Your task to perform on an android device: open wifi settings Image 0: 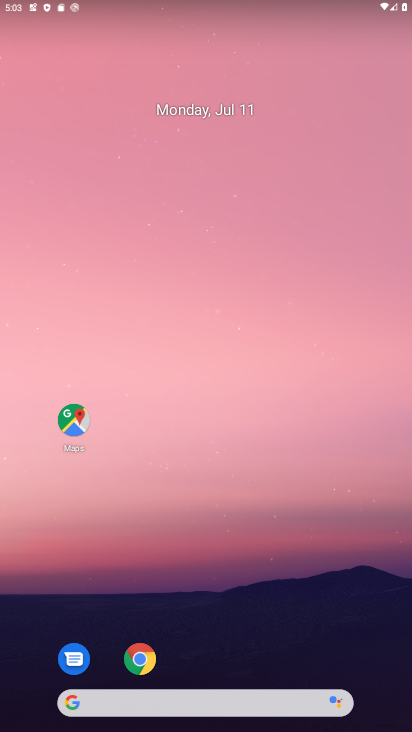
Step 0: drag from (328, 646) to (303, 132)
Your task to perform on an android device: open wifi settings Image 1: 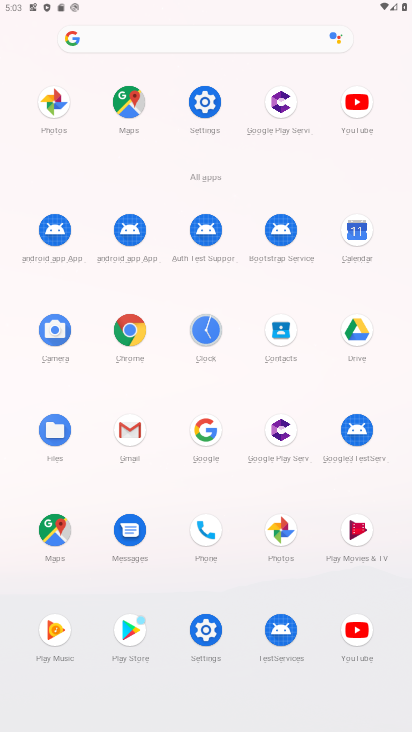
Step 1: click (209, 633)
Your task to perform on an android device: open wifi settings Image 2: 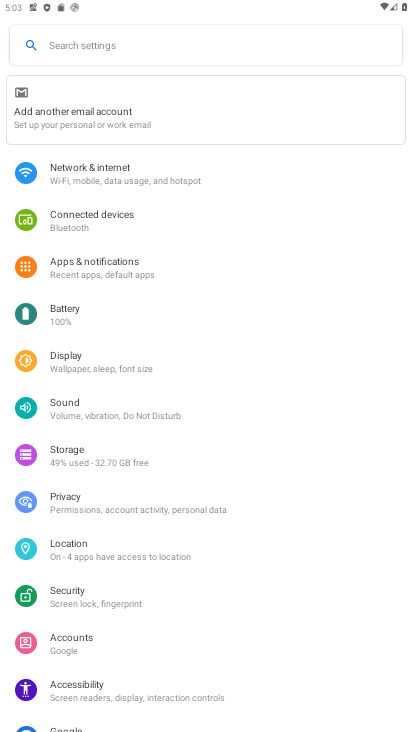
Step 2: click (93, 177)
Your task to perform on an android device: open wifi settings Image 3: 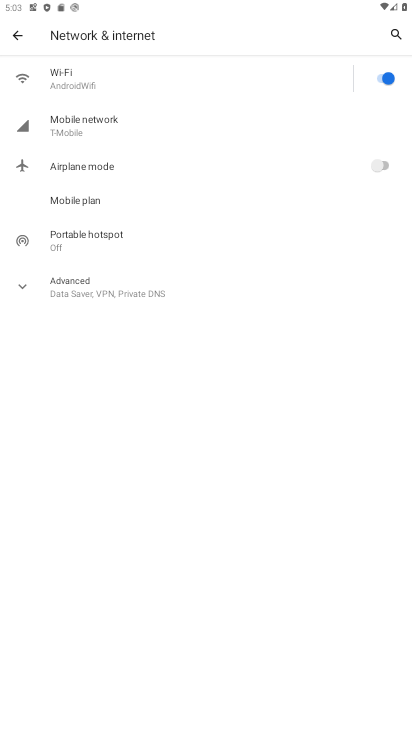
Step 3: click (19, 292)
Your task to perform on an android device: open wifi settings Image 4: 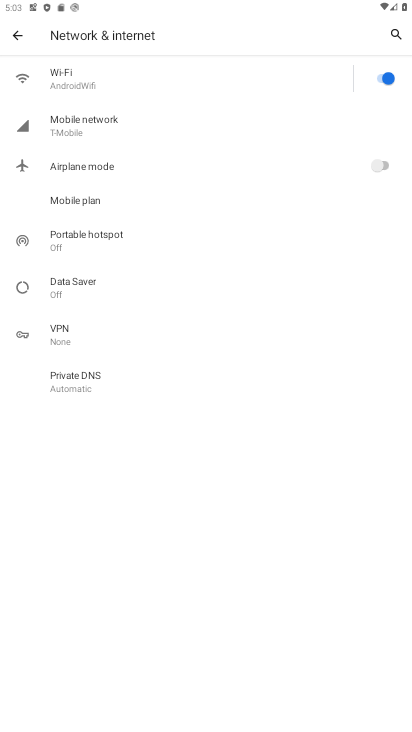
Step 4: task complete